Your task to perform on an android device: Open calendar and show me the fourth week of next month Image 0: 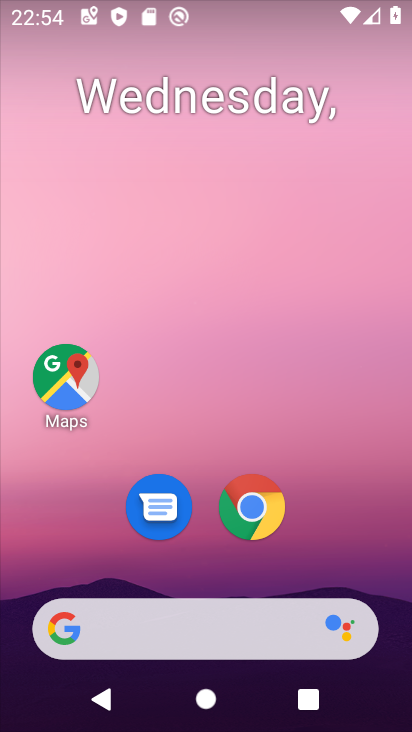
Step 0: drag from (357, 566) to (311, 160)
Your task to perform on an android device: Open calendar and show me the fourth week of next month Image 1: 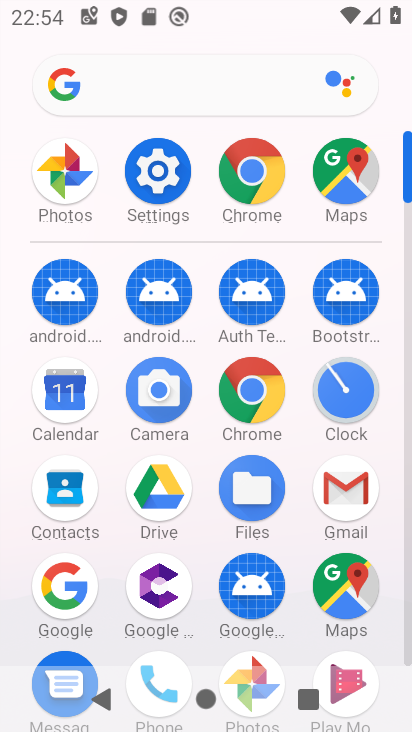
Step 1: click (53, 370)
Your task to perform on an android device: Open calendar and show me the fourth week of next month Image 2: 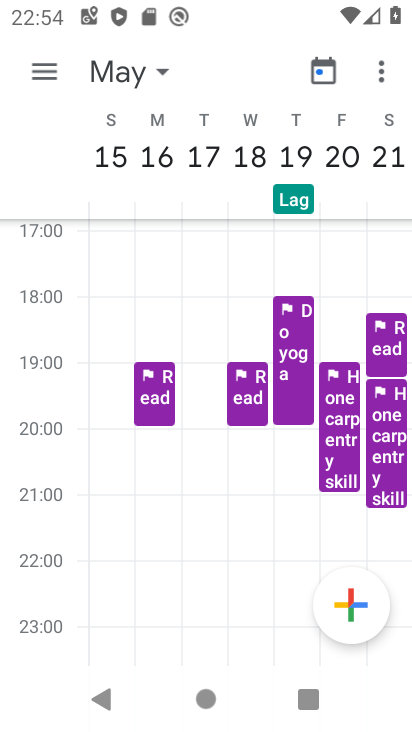
Step 2: click (47, 70)
Your task to perform on an android device: Open calendar and show me the fourth week of next month Image 3: 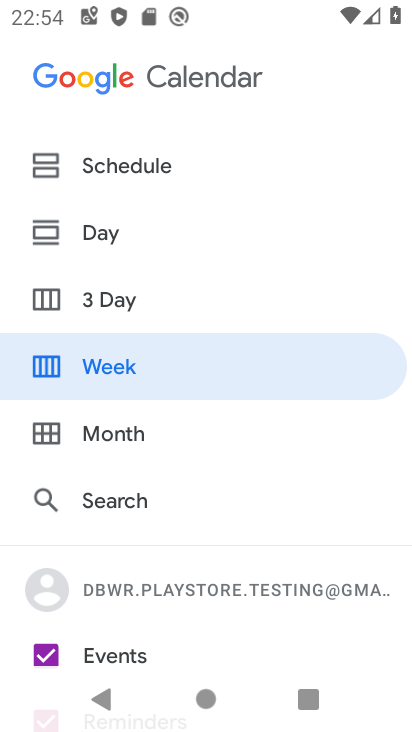
Step 3: click (124, 436)
Your task to perform on an android device: Open calendar and show me the fourth week of next month Image 4: 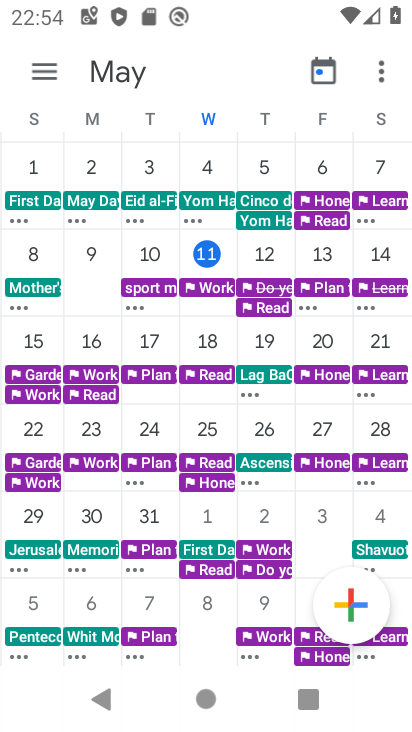
Step 4: task complete